Your task to perform on an android device: What's the weather like in Moscow? Image 0: 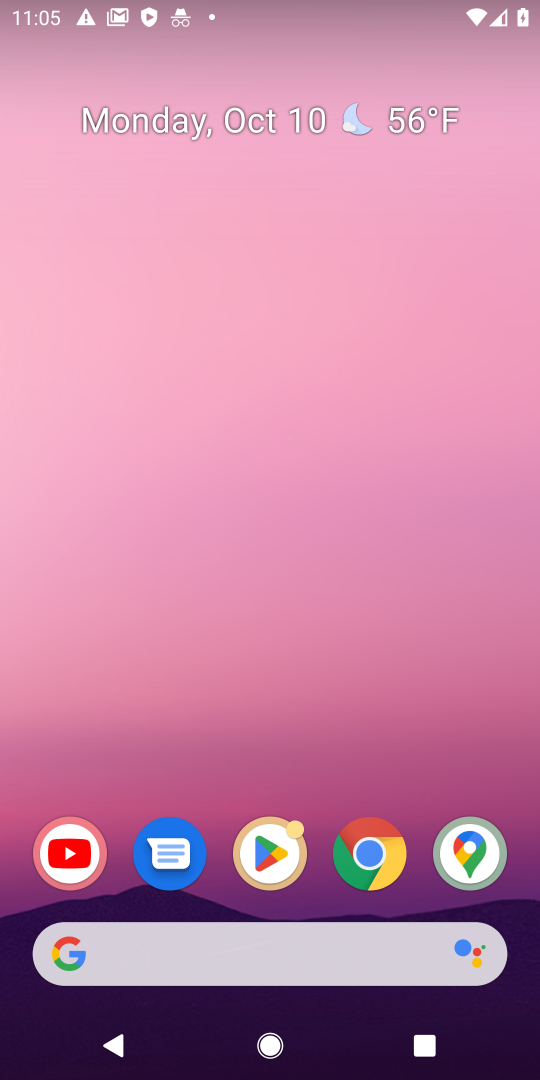
Step 0: press home button
Your task to perform on an android device: What's the weather like in Moscow? Image 1: 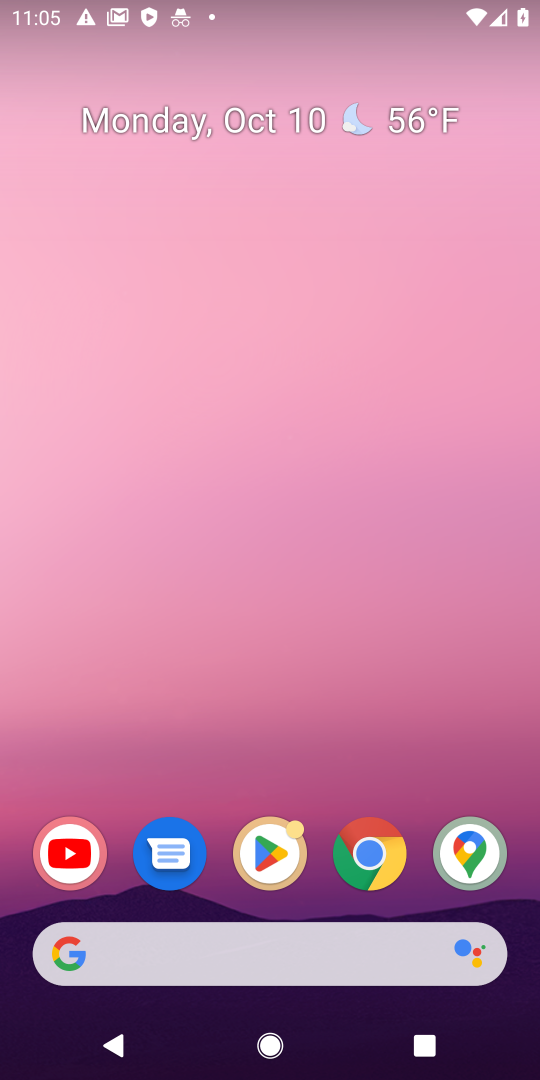
Step 1: click (183, 955)
Your task to perform on an android device: What's the weather like in Moscow? Image 2: 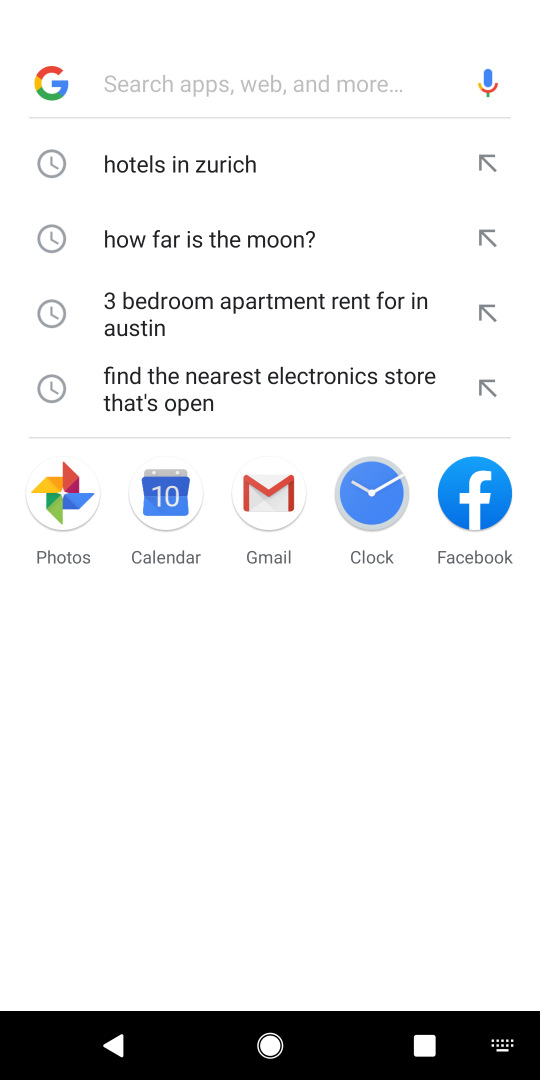
Step 2: type "What's the weather like in Moscow"
Your task to perform on an android device: What's the weather like in Moscow? Image 3: 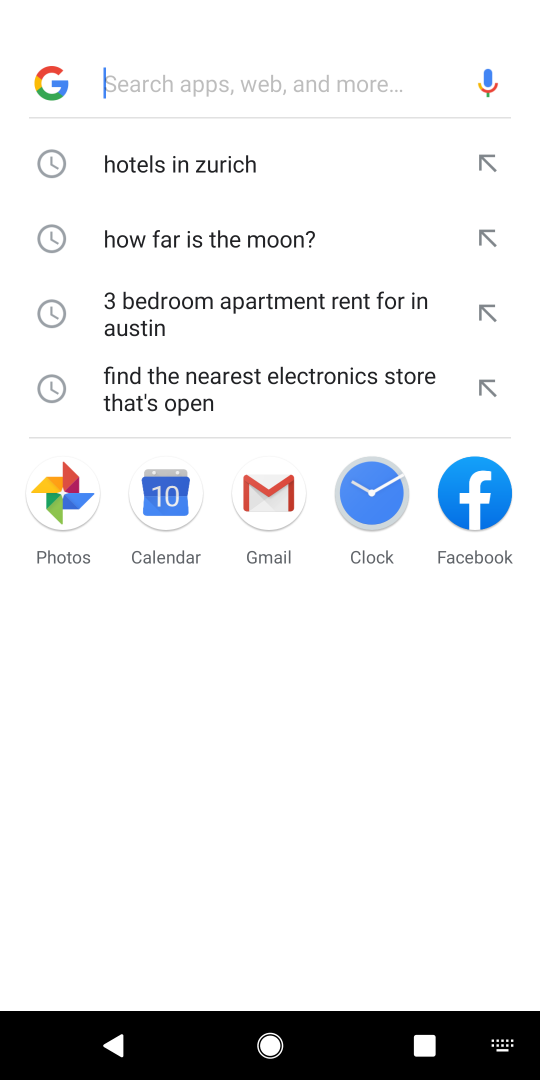
Step 3: click (226, 84)
Your task to perform on an android device: What's the weather like in Moscow? Image 4: 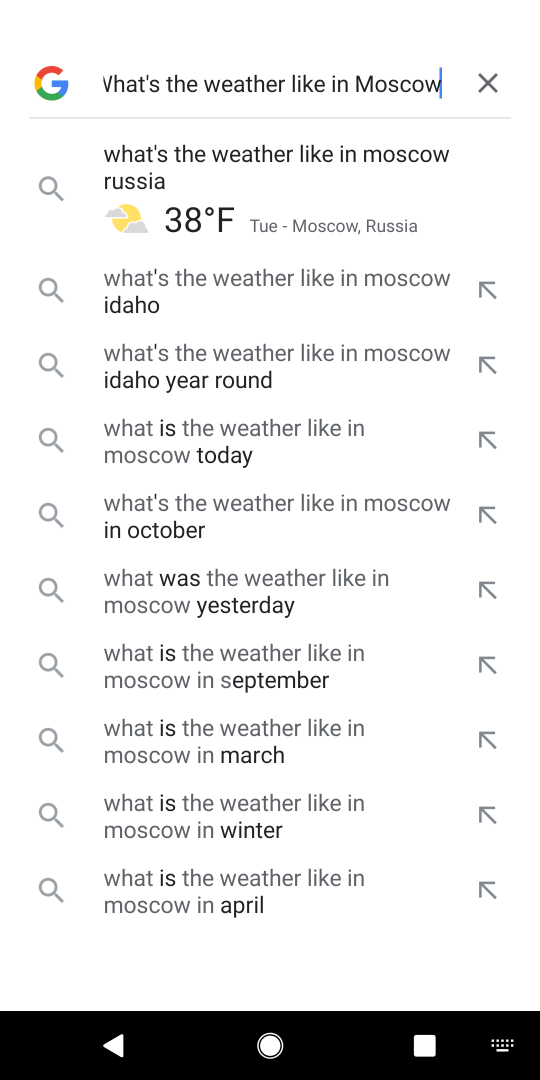
Step 4: task complete